Your task to perform on an android device: Clear the cart on target. Search for macbook pro 15 inch on target, select the first entry, and add it to the cart. Image 0: 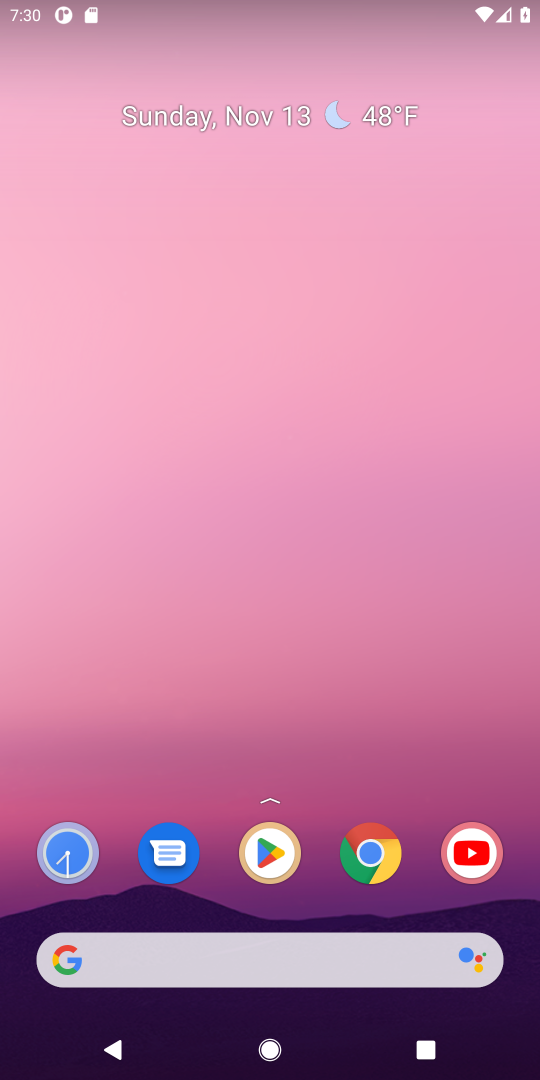
Step 0: press home button
Your task to perform on an android device: Clear the cart on target. Search for macbook pro 15 inch on target, select the first entry, and add it to the cart. Image 1: 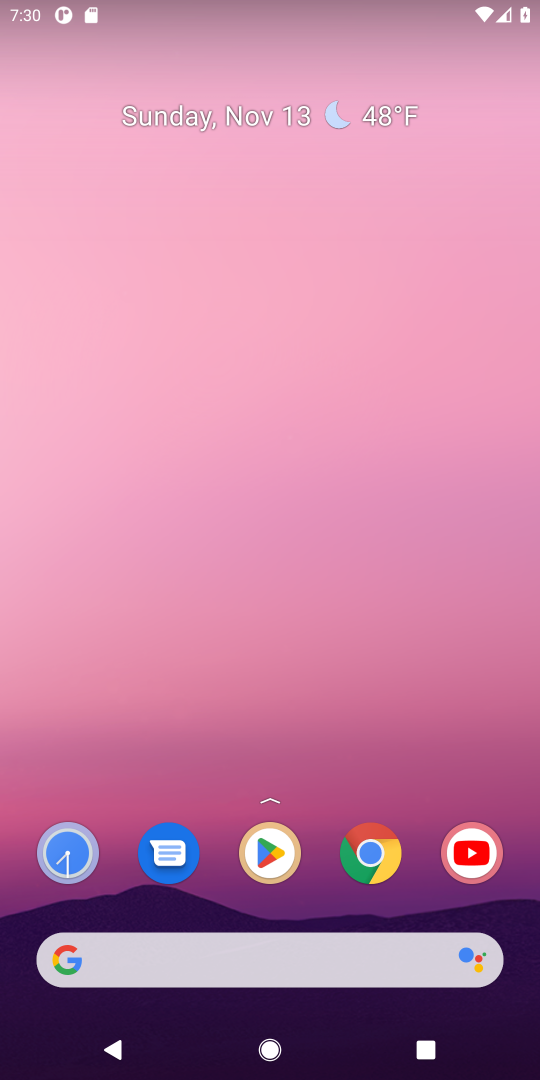
Step 1: click (105, 965)
Your task to perform on an android device: Clear the cart on target. Search for macbook pro 15 inch on target, select the first entry, and add it to the cart. Image 2: 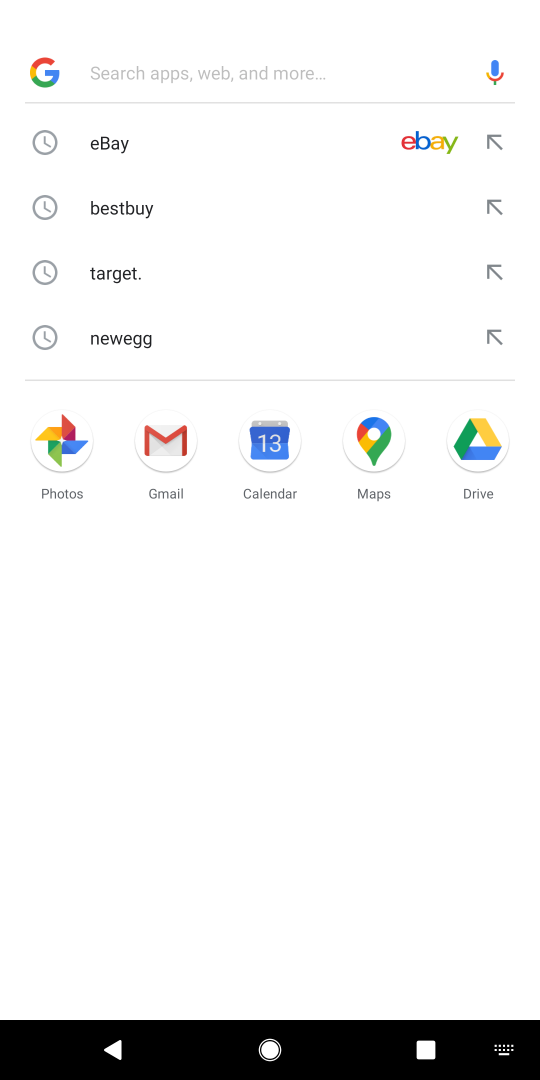
Step 2: type " target"
Your task to perform on an android device: Clear the cart on target. Search for macbook pro 15 inch on target, select the first entry, and add it to the cart. Image 3: 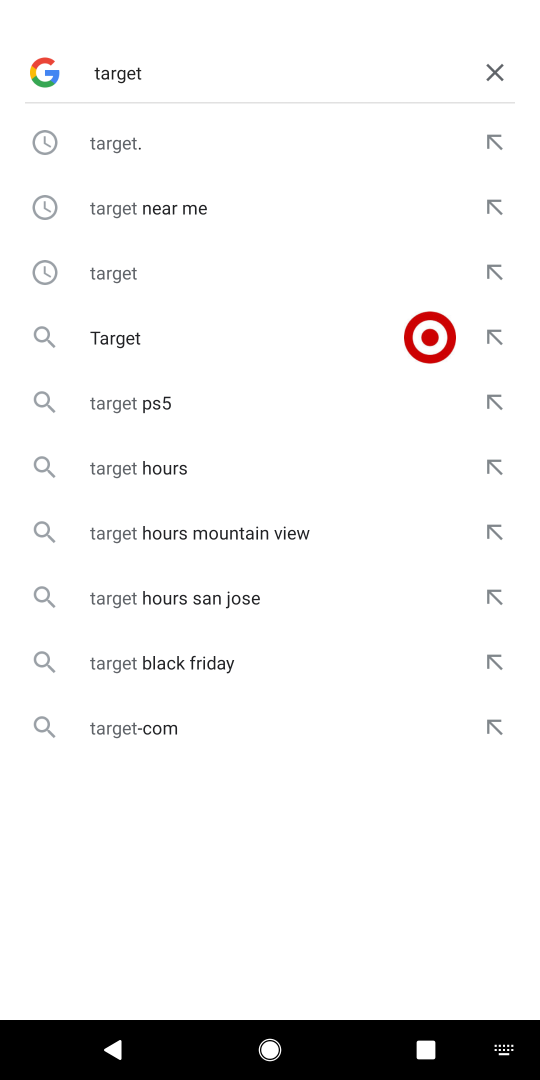
Step 3: press enter
Your task to perform on an android device: Clear the cart on target. Search for macbook pro 15 inch on target, select the first entry, and add it to the cart. Image 4: 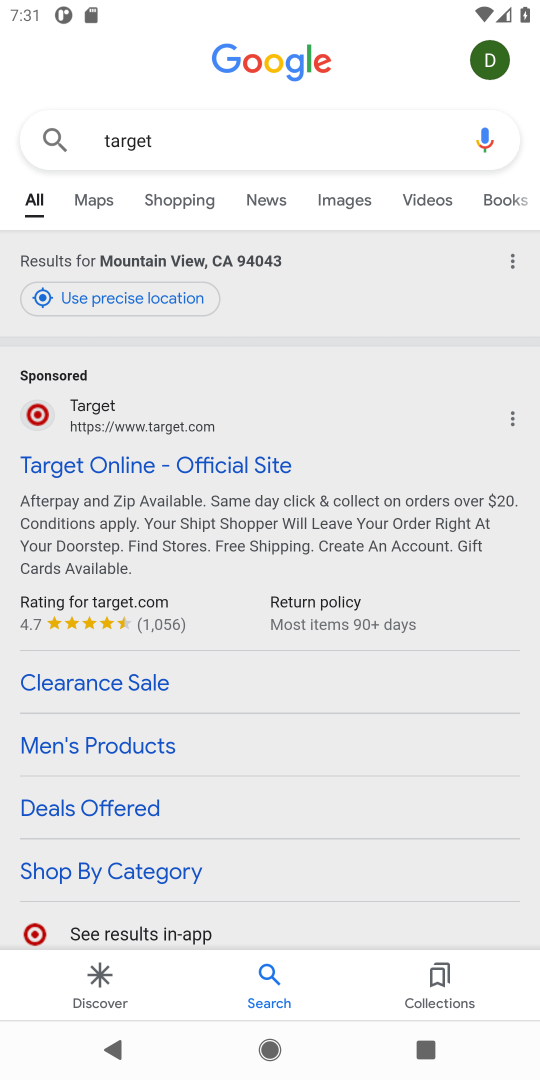
Step 4: click (141, 464)
Your task to perform on an android device: Clear the cart on target. Search for macbook pro 15 inch on target, select the first entry, and add it to the cart. Image 5: 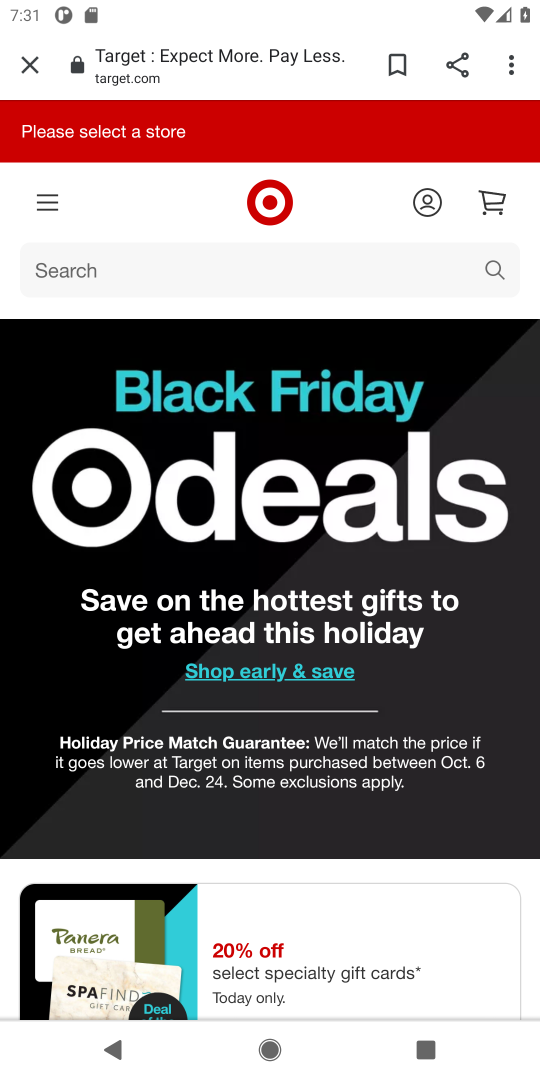
Step 5: click (492, 197)
Your task to perform on an android device: Clear the cart on target. Search for macbook pro 15 inch on target, select the first entry, and add it to the cart. Image 6: 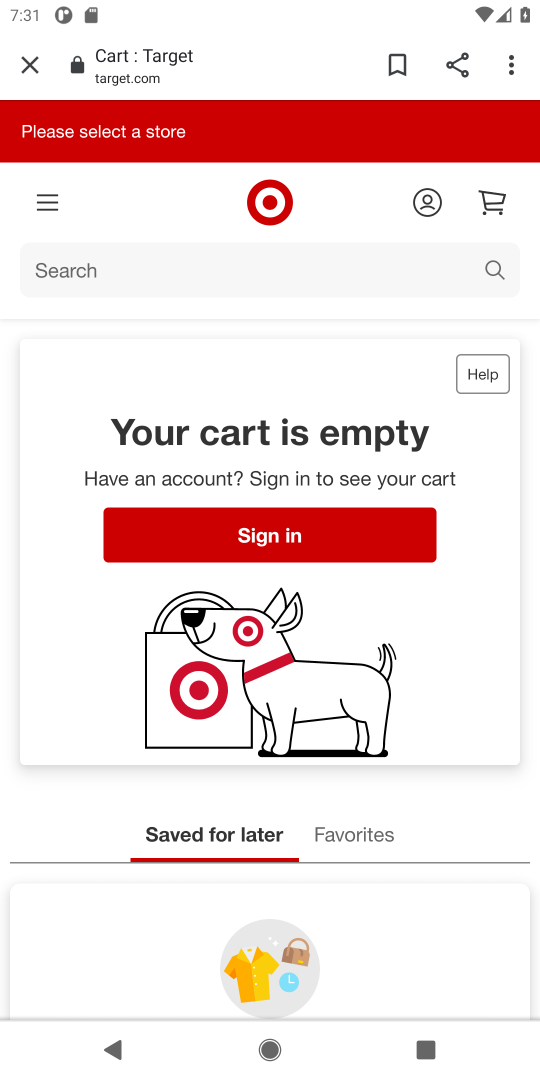
Step 6: click (92, 266)
Your task to perform on an android device: Clear the cart on target. Search for macbook pro 15 inch on target, select the first entry, and add it to the cart. Image 7: 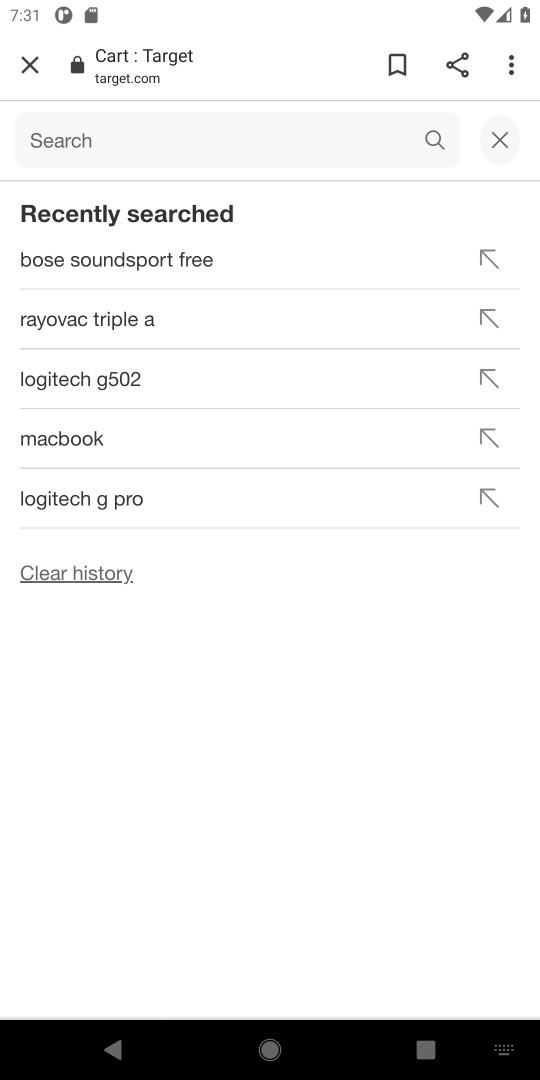
Step 7: type "macbook pro 15 inch "
Your task to perform on an android device: Clear the cart on target. Search for macbook pro 15 inch on target, select the first entry, and add it to the cart. Image 8: 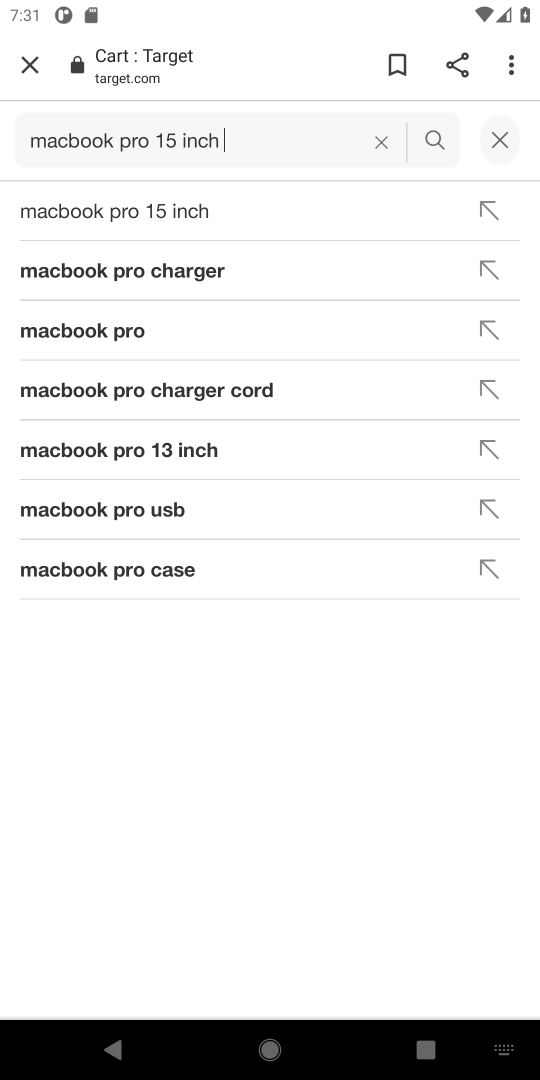
Step 8: press enter
Your task to perform on an android device: Clear the cart on target. Search for macbook pro 15 inch on target, select the first entry, and add it to the cart. Image 9: 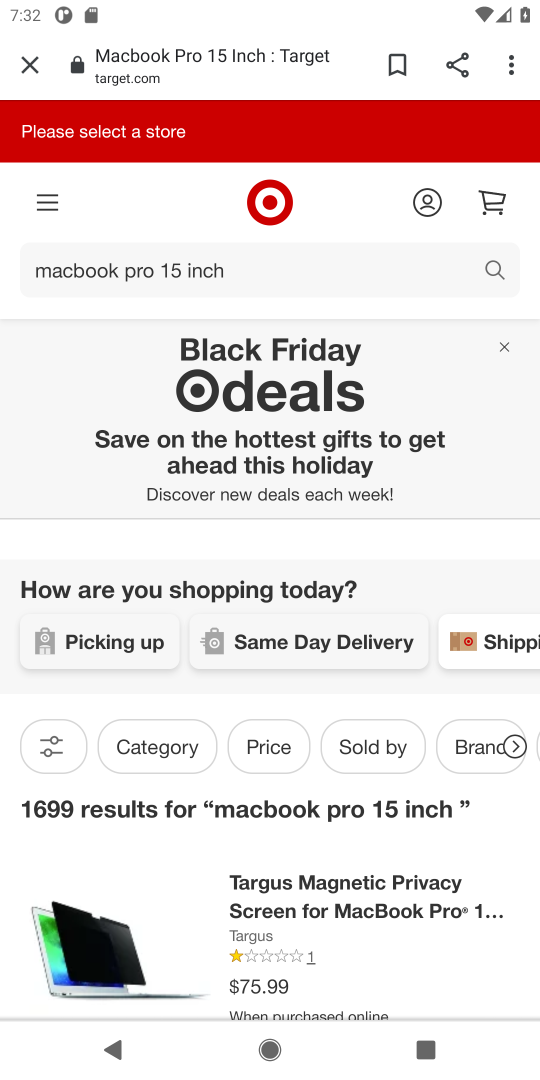
Step 9: drag from (344, 905) to (363, 472)
Your task to perform on an android device: Clear the cart on target. Search for macbook pro 15 inch on target, select the first entry, and add it to the cart. Image 10: 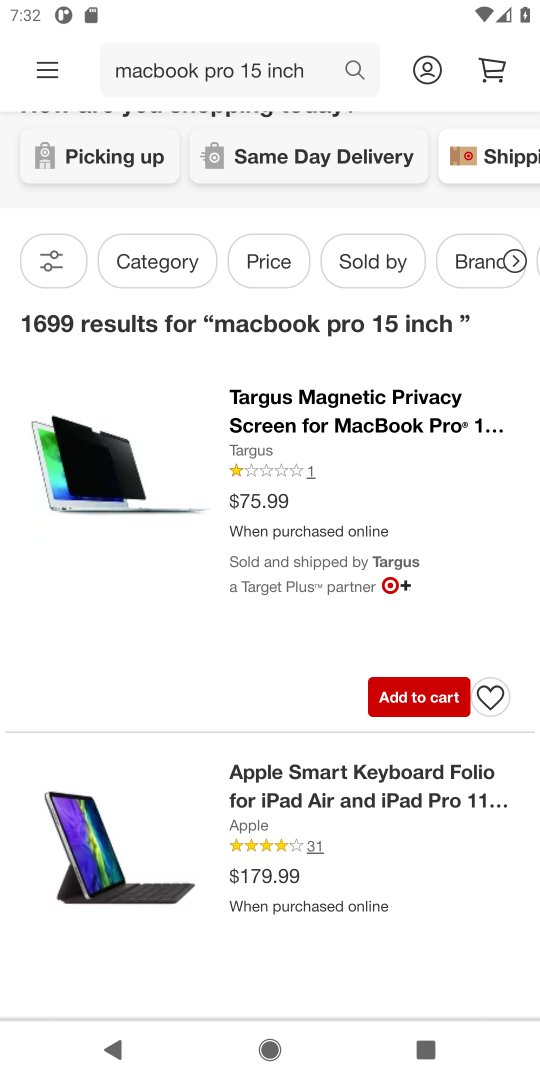
Step 10: drag from (340, 858) to (350, 502)
Your task to perform on an android device: Clear the cart on target. Search for macbook pro 15 inch on target, select the first entry, and add it to the cart. Image 11: 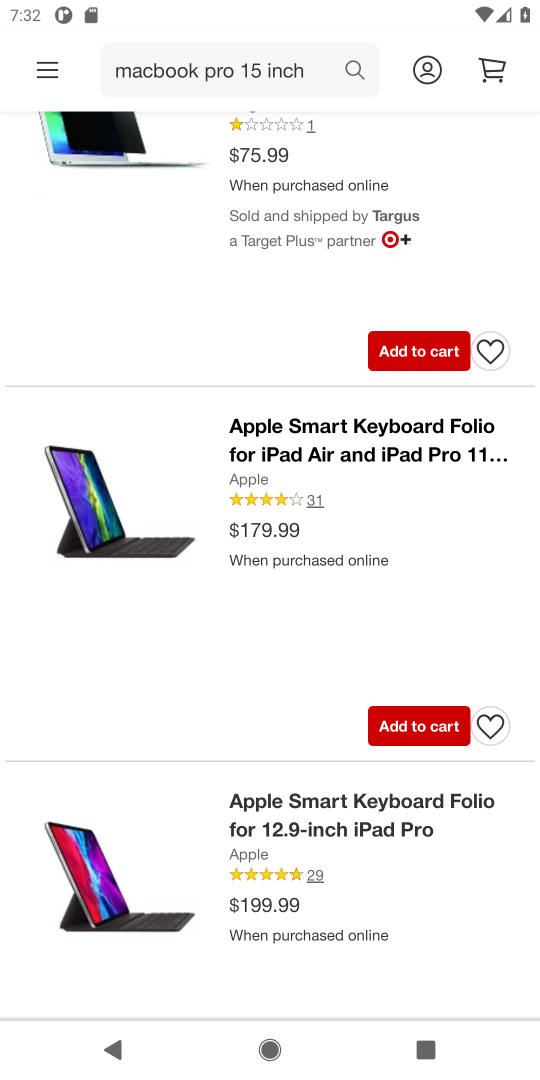
Step 11: drag from (289, 256) to (289, 675)
Your task to perform on an android device: Clear the cart on target. Search for macbook pro 15 inch on target, select the first entry, and add it to the cart. Image 12: 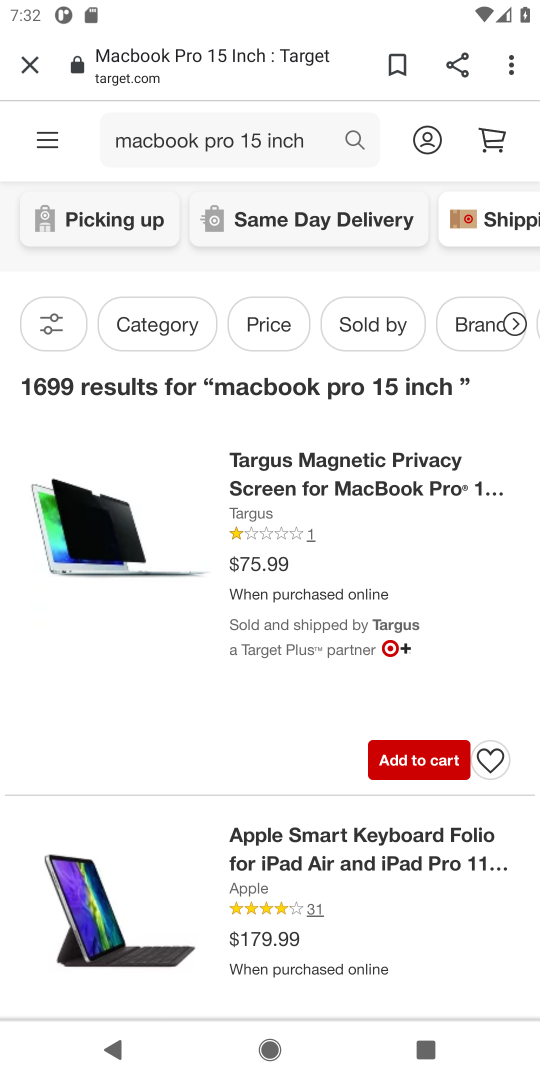
Step 12: click (410, 759)
Your task to perform on an android device: Clear the cart on target. Search for macbook pro 15 inch on target, select the first entry, and add it to the cart. Image 13: 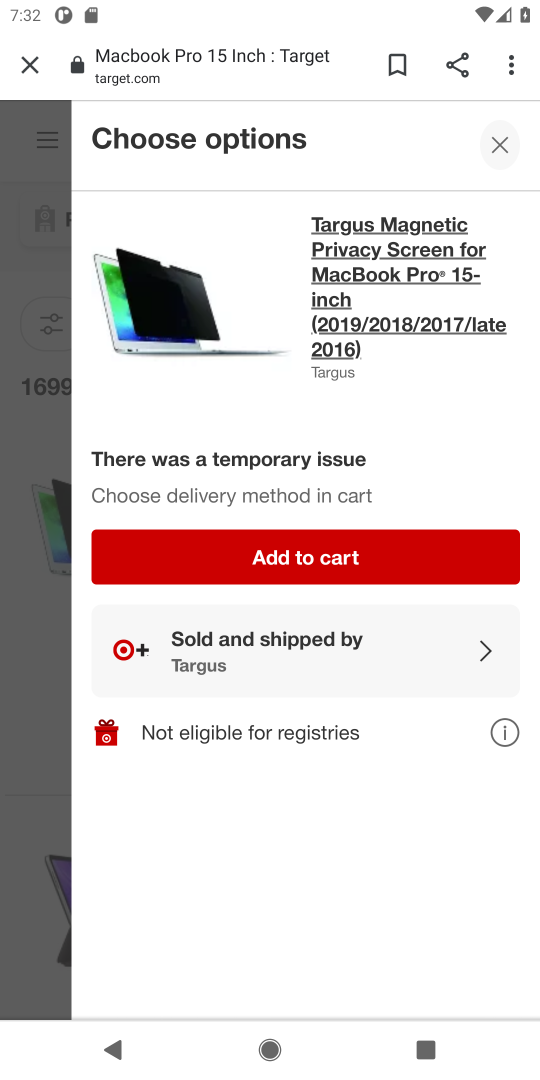
Step 13: click (315, 553)
Your task to perform on an android device: Clear the cart on target. Search for macbook pro 15 inch on target, select the first entry, and add it to the cart. Image 14: 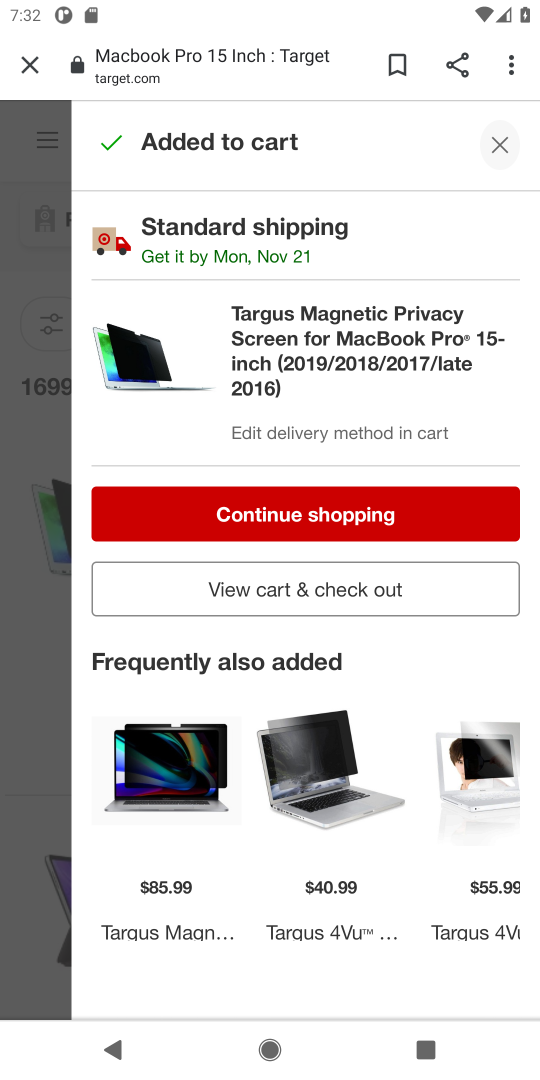
Step 14: task complete